Your task to perform on an android device: turn on priority inbox in the gmail app Image 0: 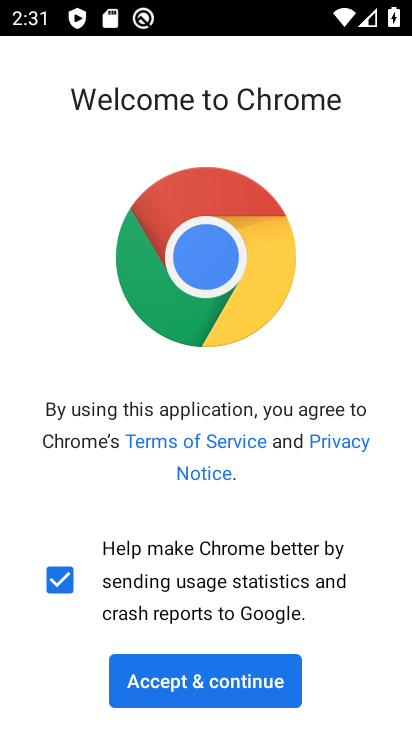
Step 0: press home button
Your task to perform on an android device: turn on priority inbox in the gmail app Image 1: 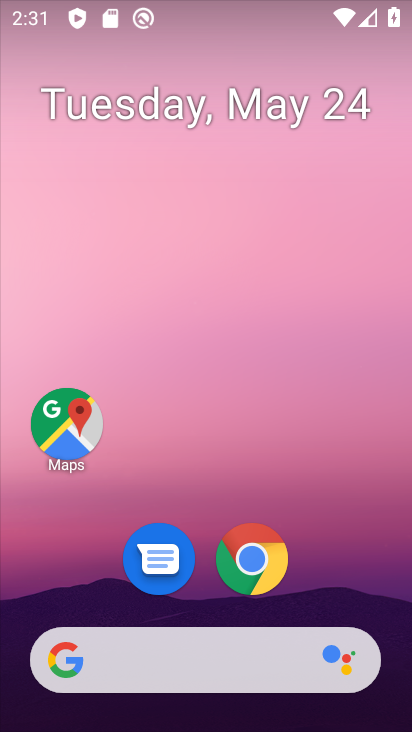
Step 1: drag from (241, 649) to (231, 321)
Your task to perform on an android device: turn on priority inbox in the gmail app Image 2: 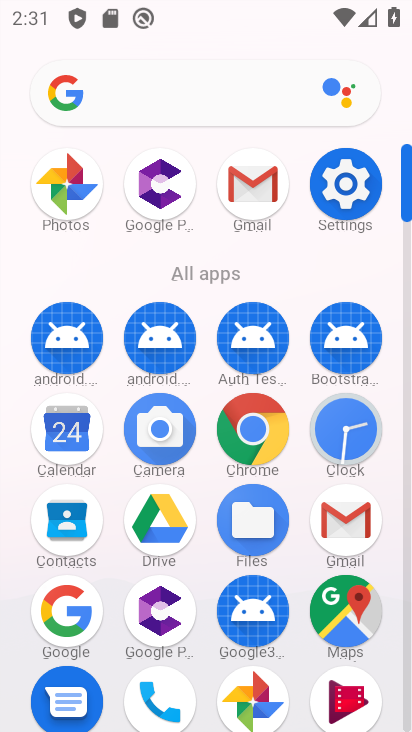
Step 2: click (257, 194)
Your task to perform on an android device: turn on priority inbox in the gmail app Image 3: 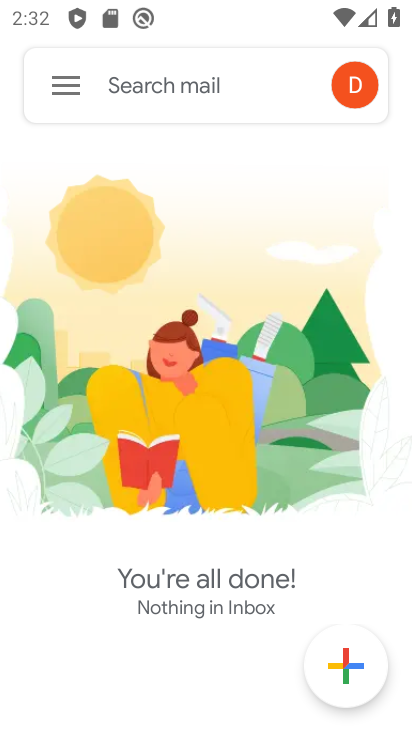
Step 3: click (72, 80)
Your task to perform on an android device: turn on priority inbox in the gmail app Image 4: 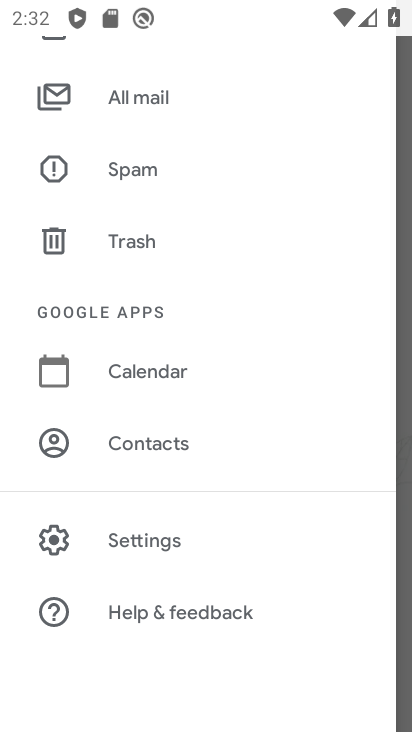
Step 4: click (141, 521)
Your task to perform on an android device: turn on priority inbox in the gmail app Image 5: 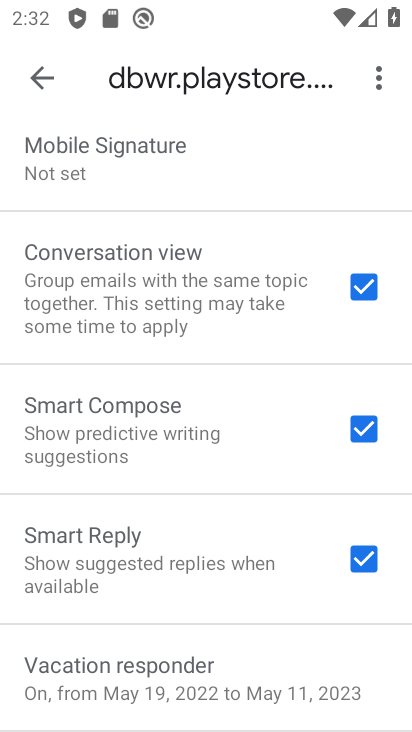
Step 5: drag from (83, 197) to (96, 478)
Your task to perform on an android device: turn on priority inbox in the gmail app Image 6: 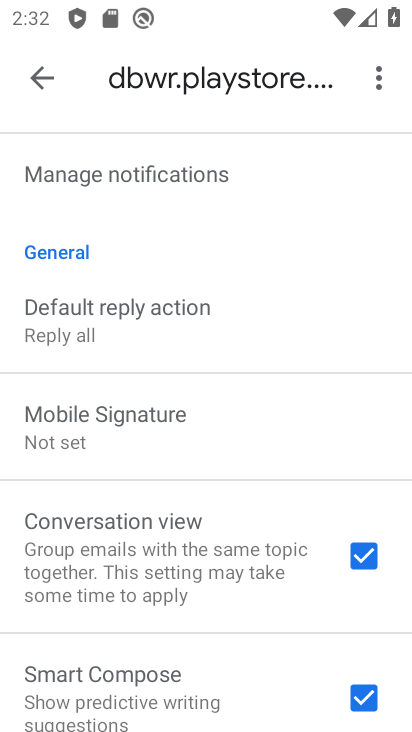
Step 6: drag from (116, 230) to (98, 686)
Your task to perform on an android device: turn on priority inbox in the gmail app Image 7: 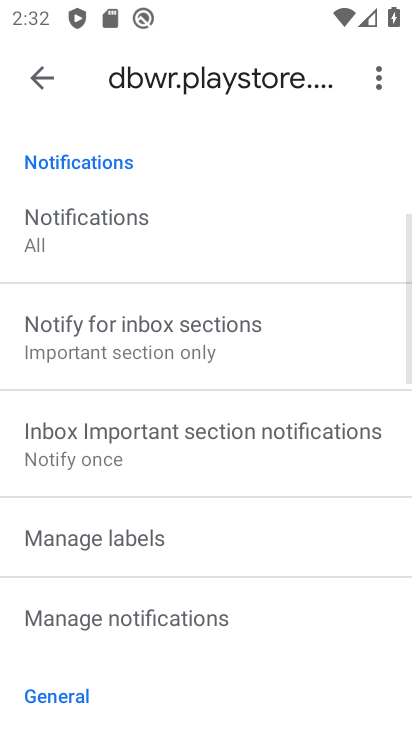
Step 7: drag from (158, 447) to (98, 725)
Your task to perform on an android device: turn on priority inbox in the gmail app Image 8: 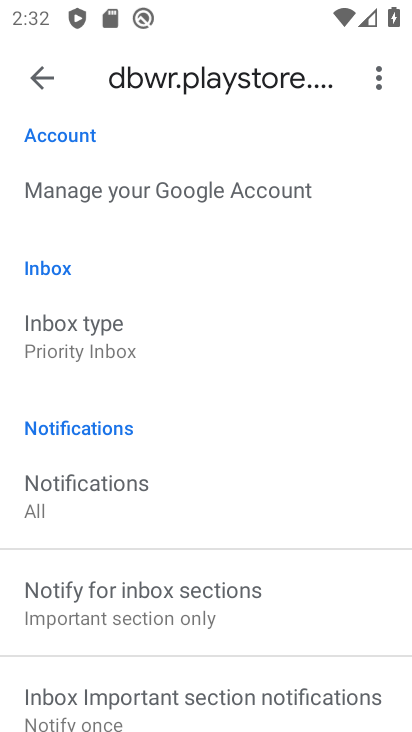
Step 8: click (120, 339)
Your task to perform on an android device: turn on priority inbox in the gmail app Image 9: 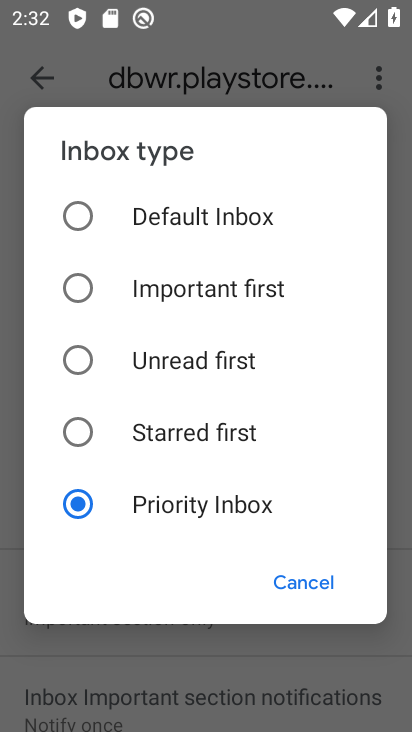
Step 9: click (142, 498)
Your task to perform on an android device: turn on priority inbox in the gmail app Image 10: 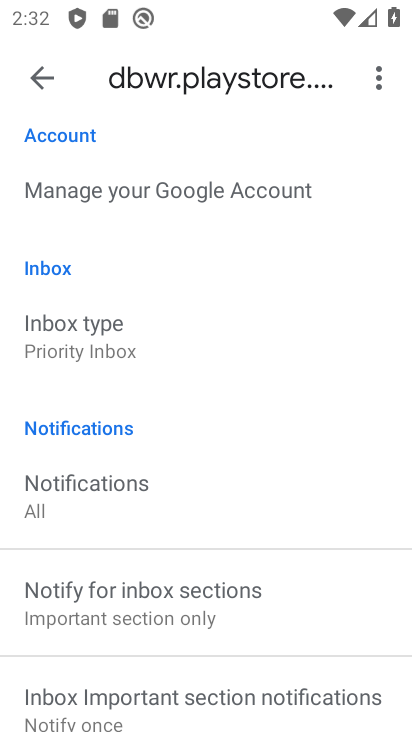
Step 10: task complete